Your task to perform on an android device: Go to Yahoo.com Image 0: 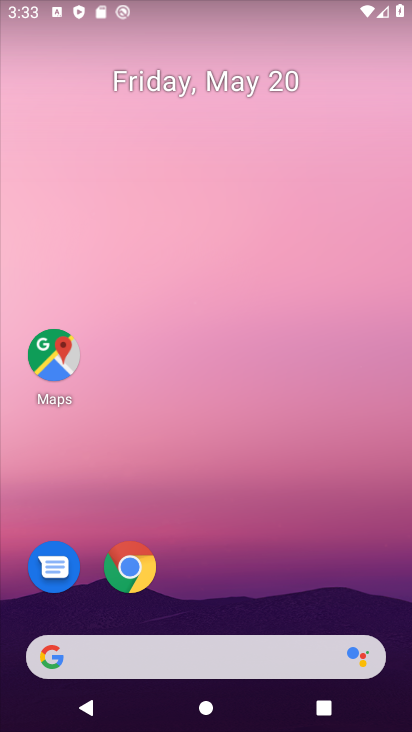
Step 0: drag from (292, 513) to (263, 72)
Your task to perform on an android device: Go to Yahoo.com Image 1: 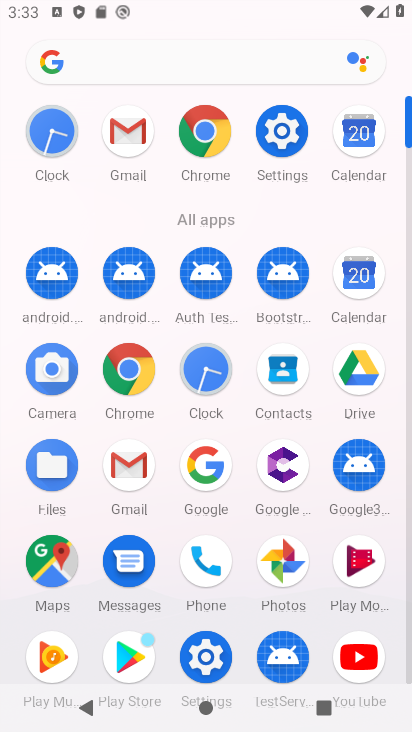
Step 1: click (204, 119)
Your task to perform on an android device: Go to Yahoo.com Image 2: 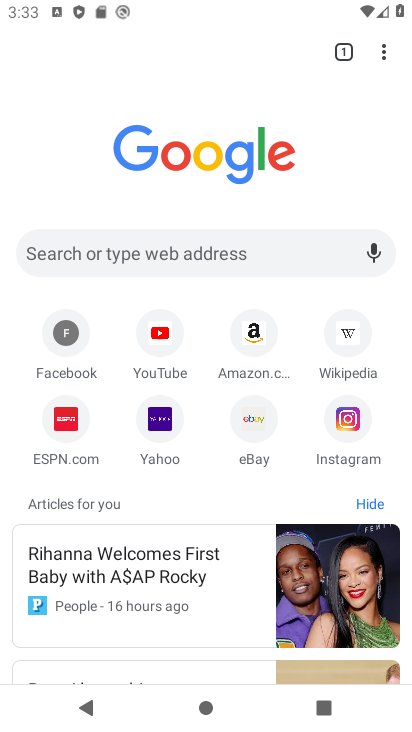
Step 2: click (150, 440)
Your task to perform on an android device: Go to Yahoo.com Image 3: 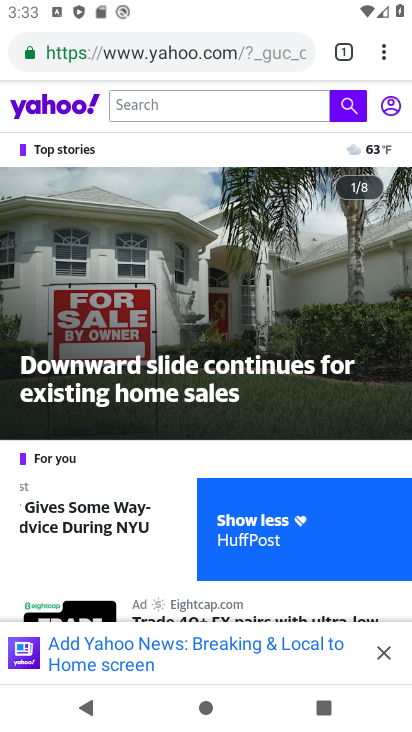
Step 3: task complete